Your task to perform on an android device: Set the phone to "Do not disturb". Image 0: 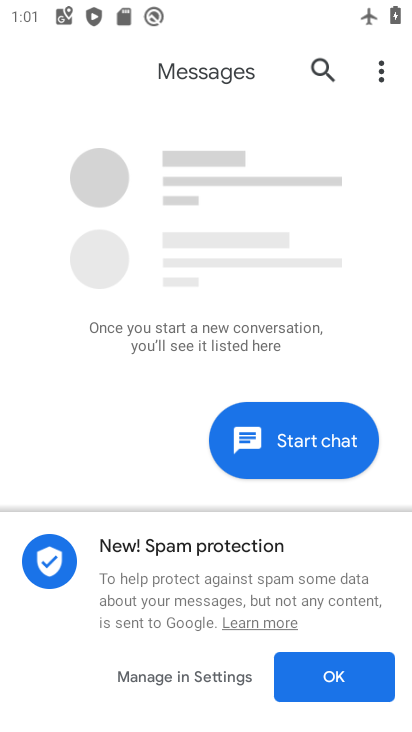
Step 0: drag from (163, 562) to (243, 243)
Your task to perform on an android device: Set the phone to "Do not disturb". Image 1: 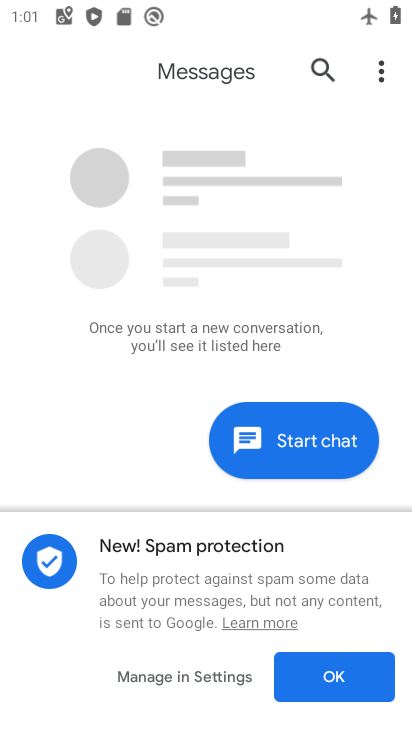
Step 1: press home button
Your task to perform on an android device: Set the phone to "Do not disturb". Image 2: 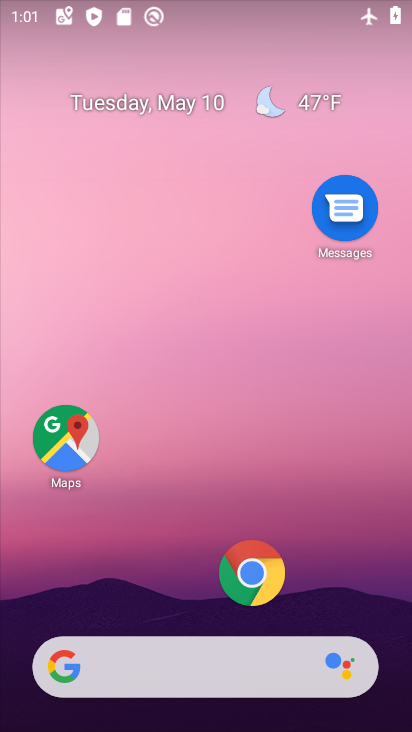
Step 2: drag from (200, 601) to (268, 166)
Your task to perform on an android device: Set the phone to "Do not disturb". Image 3: 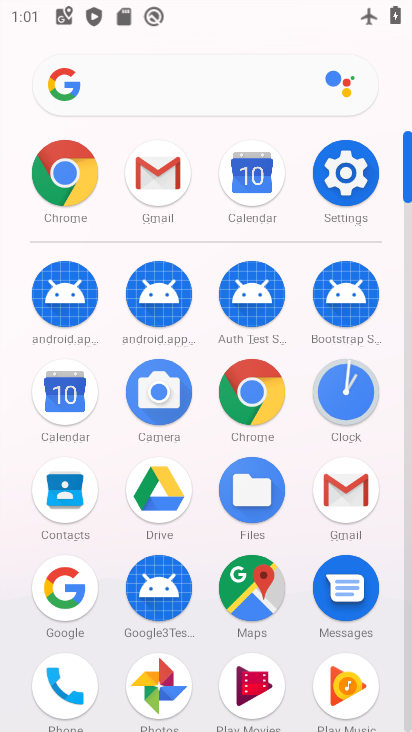
Step 3: click (316, 153)
Your task to perform on an android device: Set the phone to "Do not disturb". Image 4: 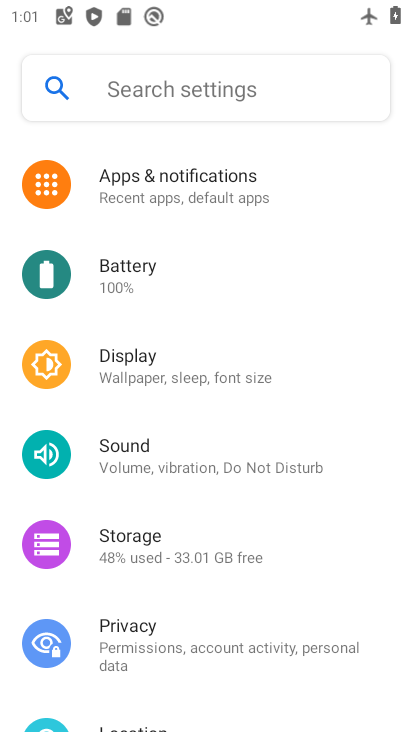
Step 4: drag from (206, 573) to (286, 97)
Your task to perform on an android device: Set the phone to "Do not disturb". Image 5: 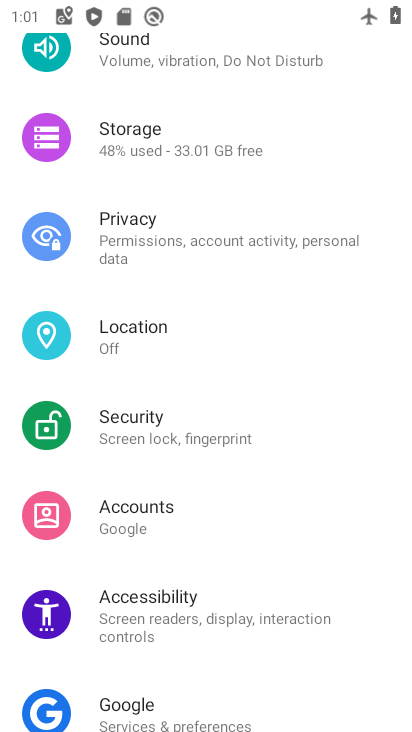
Step 5: drag from (151, 616) to (248, 154)
Your task to perform on an android device: Set the phone to "Do not disturb". Image 6: 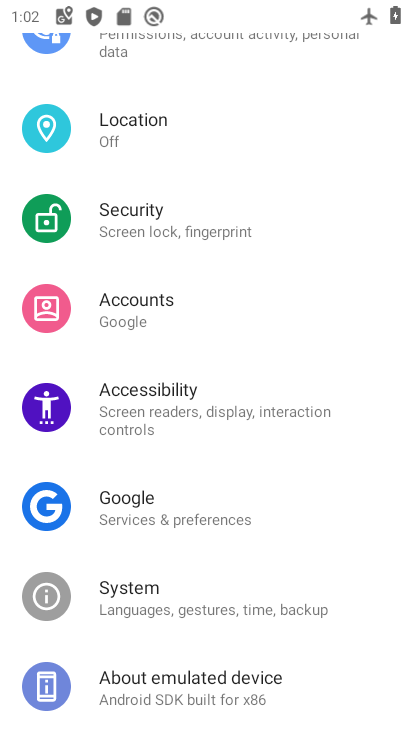
Step 6: drag from (171, 701) to (238, 322)
Your task to perform on an android device: Set the phone to "Do not disturb". Image 7: 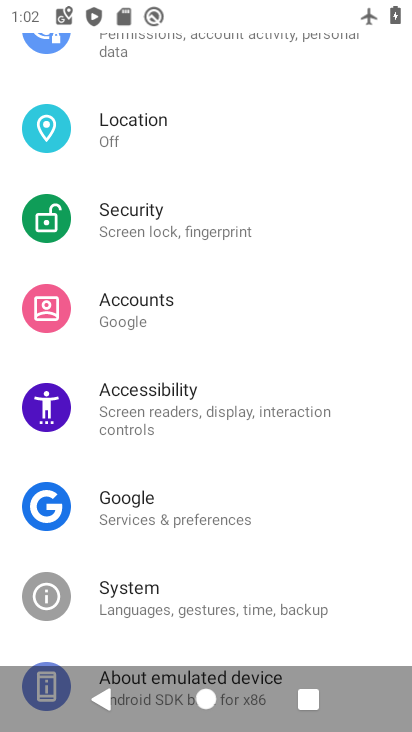
Step 7: drag from (175, 614) to (240, 369)
Your task to perform on an android device: Set the phone to "Do not disturb". Image 8: 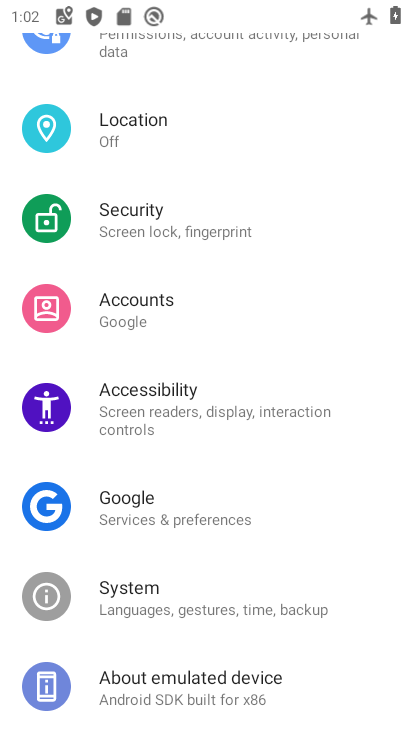
Step 8: drag from (249, 42) to (246, 683)
Your task to perform on an android device: Set the phone to "Do not disturb". Image 9: 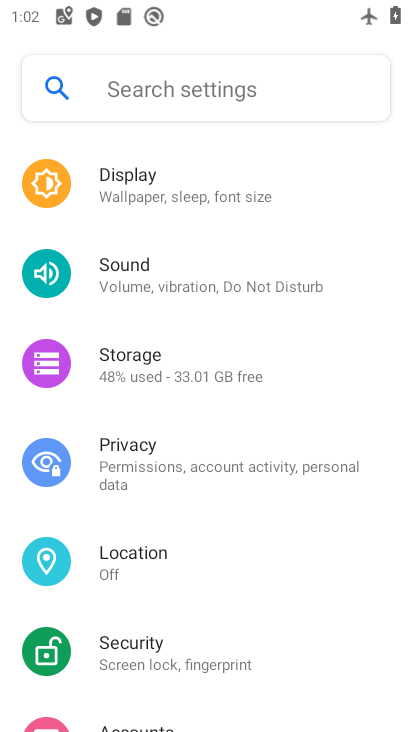
Step 9: drag from (210, 302) to (234, 661)
Your task to perform on an android device: Set the phone to "Do not disturb". Image 10: 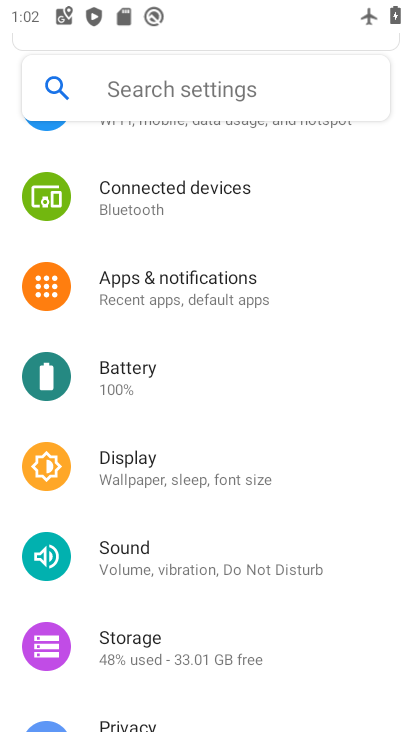
Step 10: click (193, 292)
Your task to perform on an android device: Set the phone to "Do not disturb". Image 11: 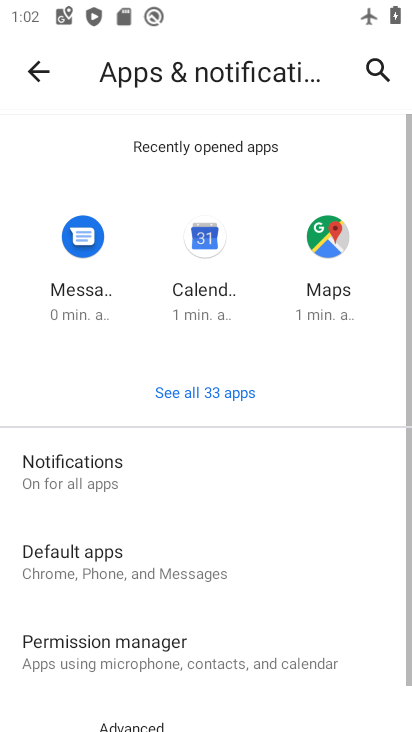
Step 11: drag from (236, 554) to (354, 100)
Your task to perform on an android device: Set the phone to "Do not disturb". Image 12: 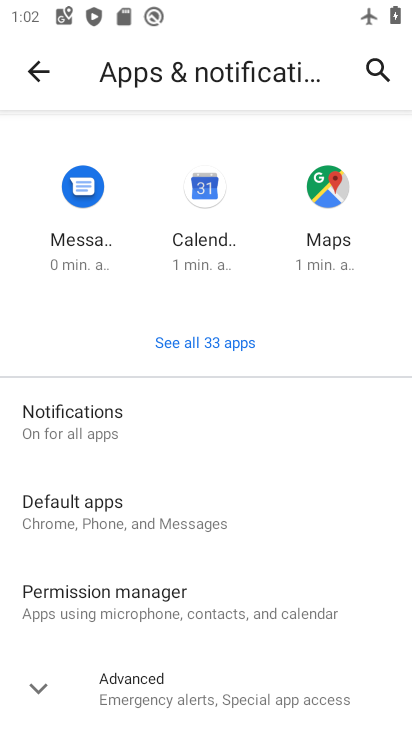
Step 12: drag from (194, 560) to (285, 276)
Your task to perform on an android device: Set the phone to "Do not disturb". Image 13: 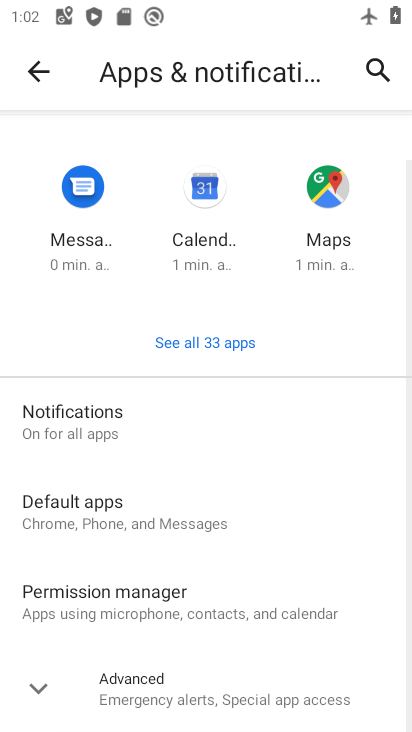
Step 13: click (170, 692)
Your task to perform on an android device: Set the phone to "Do not disturb". Image 14: 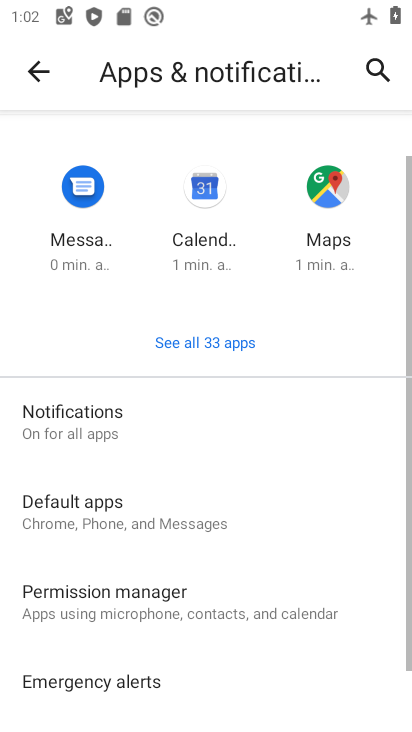
Step 14: drag from (168, 691) to (226, 293)
Your task to perform on an android device: Set the phone to "Do not disturb". Image 15: 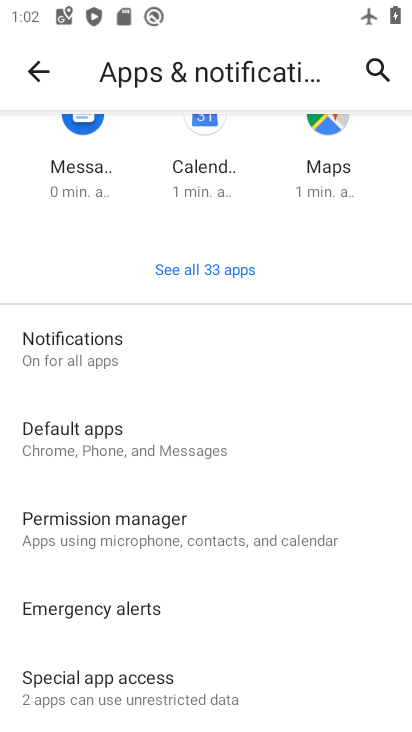
Step 15: click (155, 326)
Your task to perform on an android device: Set the phone to "Do not disturb". Image 16: 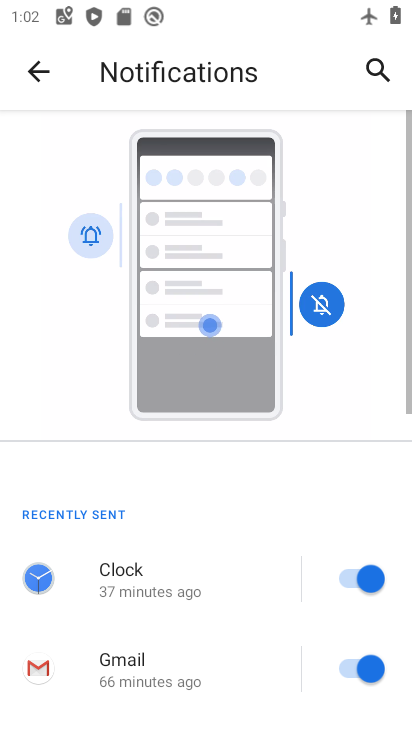
Step 16: drag from (179, 665) to (288, 234)
Your task to perform on an android device: Set the phone to "Do not disturb". Image 17: 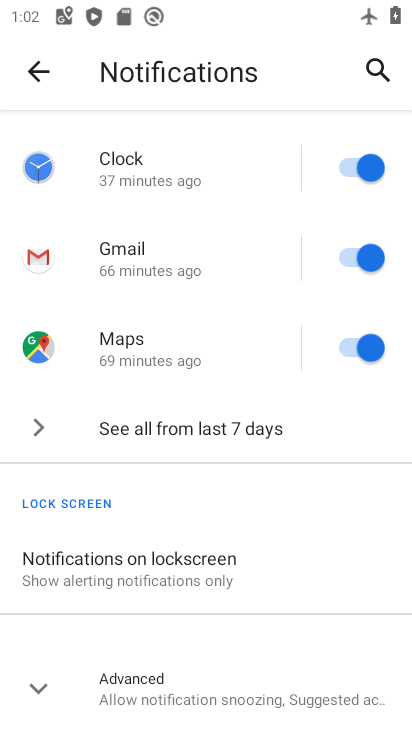
Step 17: drag from (203, 603) to (263, 327)
Your task to perform on an android device: Set the phone to "Do not disturb". Image 18: 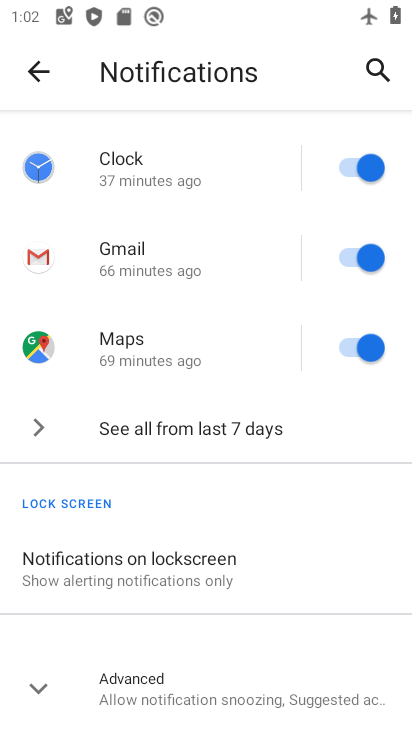
Step 18: click (178, 693)
Your task to perform on an android device: Set the phone to "Do not disturb". Image 19: 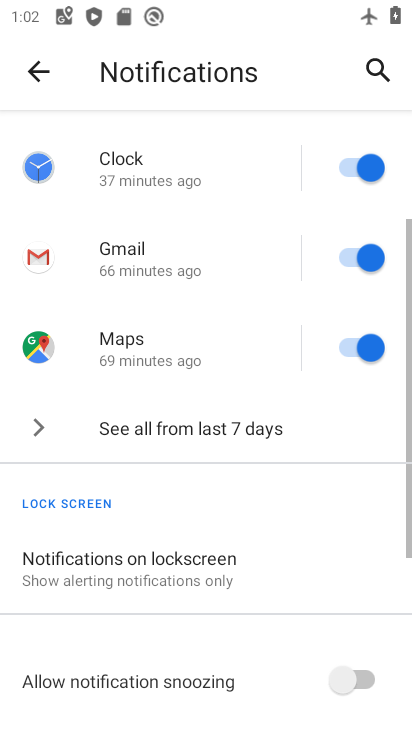
Step 19: drag from (189, 672) to (248, 386)
Your task to perform on an android device: Set the phone to "Do not disturb". Image 20: 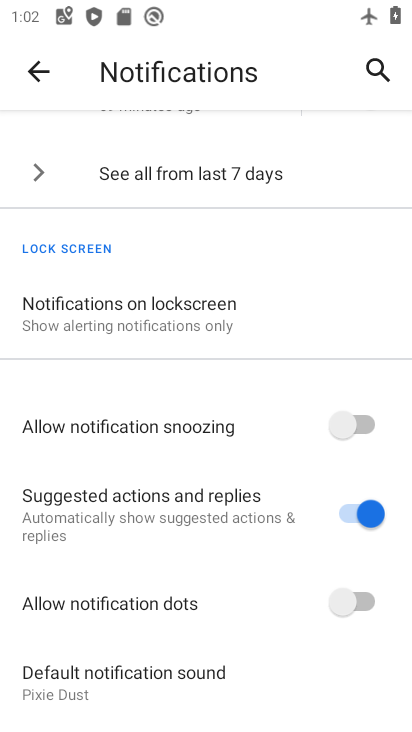
Step 20: drag from (225, 644) to (305, 352)
Your task to perform on an android device: Set the phone to "Do not disturb". Image 21: 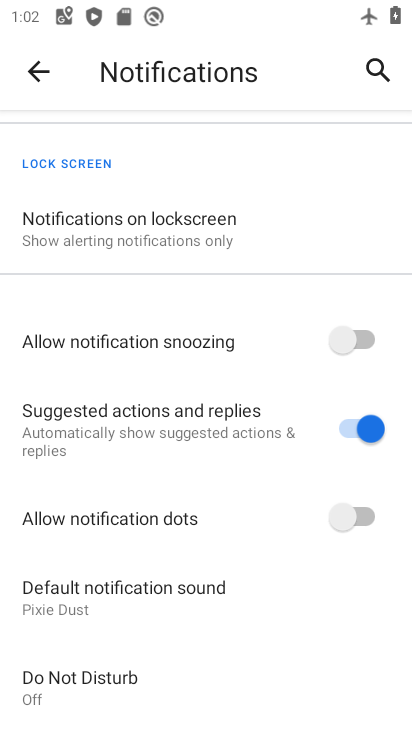
Step 21: click (142, 687)
Your task to perform on an android device: Set the phone to "Do not disturb". Image 22: 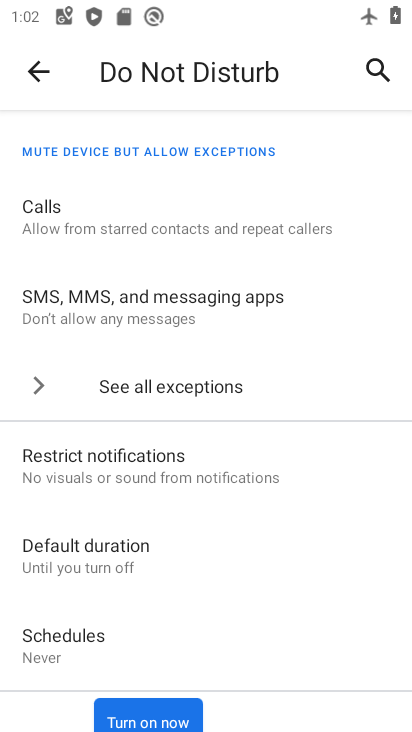
Step 22: click (138, 727)
Your task to perform on an android device: Set the phone to "Do not disturb". Image 23: 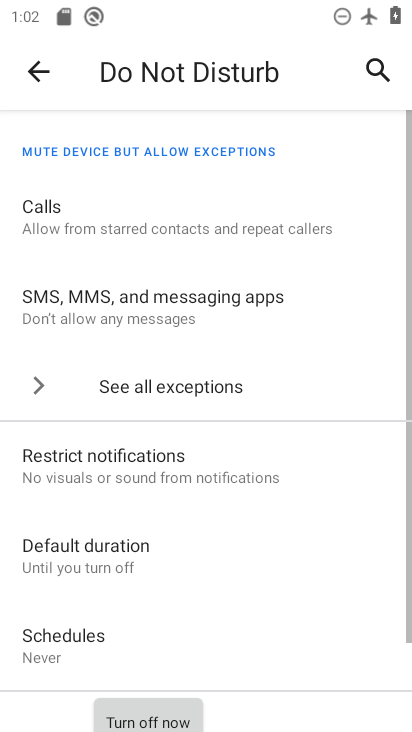
Step 23: task complete